Your task to perform on an android device: turn off javascript in the chrome app Image 0: 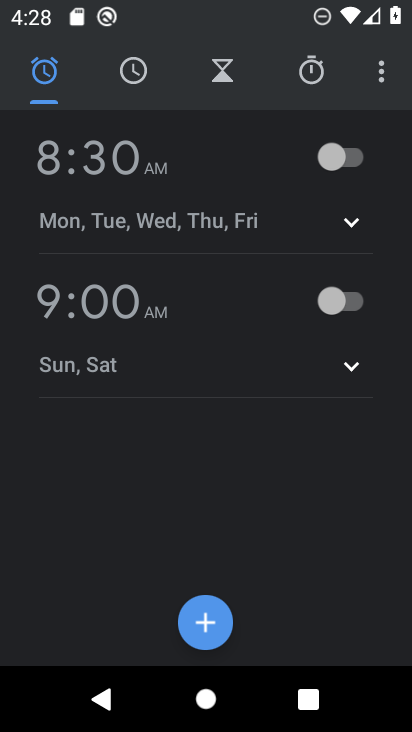
Step 0: press back button
Your task to perform on an android device: turn off javascript in the chrome app Image 1: 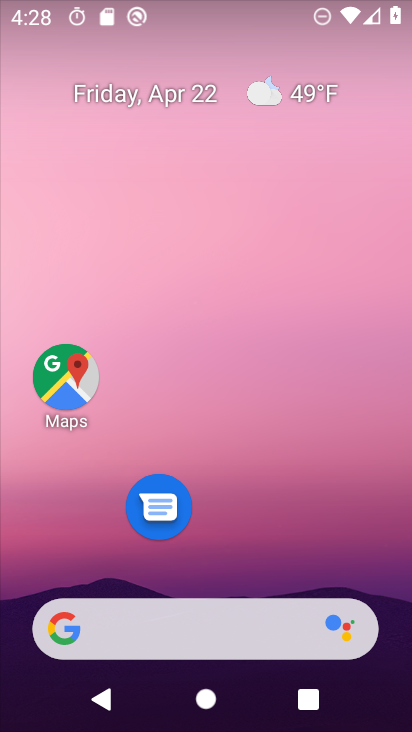
Step 1: drag from (254, 490) to (293, 96)
Your task to perform on an android device: turn off javascript in the chrome app Image 2: 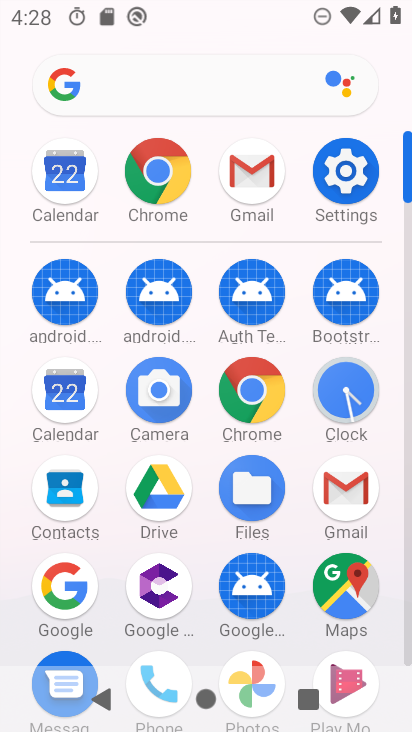
Step 2: click (164, 165)
Your task to perform on an android device: turn off javascript in the chrome app Image 3: 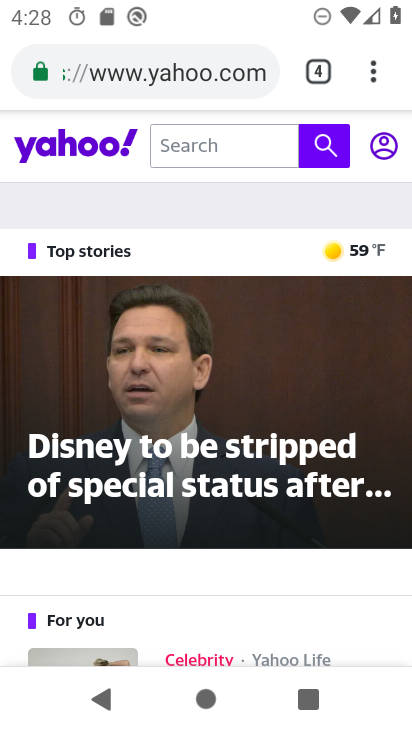
Step 3: drag from (371, 67) to (139, 497)
Your task to perform on an android device: turn off javascript in the chrome app Image 4: 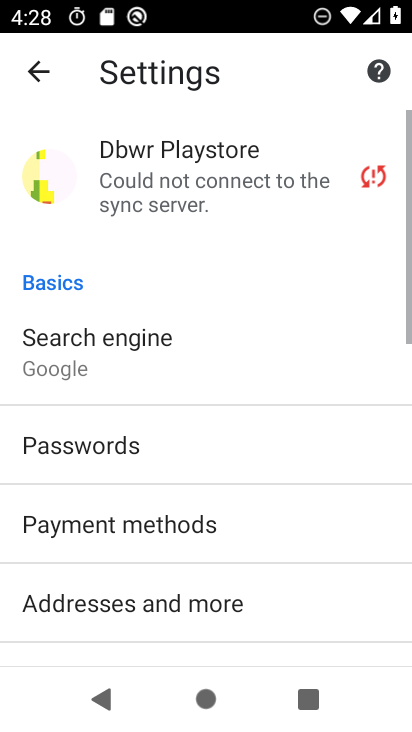
Step 4: drag from (102, 550) to (193, 118)
Your task to perform on an android device: turn off javascript in the chrome app Image 5: 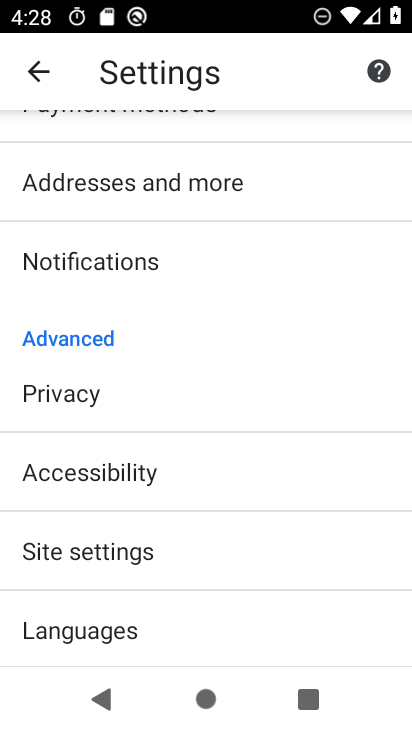
Step 5: drag from (98, 590) to (182, 252)
Your task to perform on an android device: turn off javascript in the chrome app Image 6: 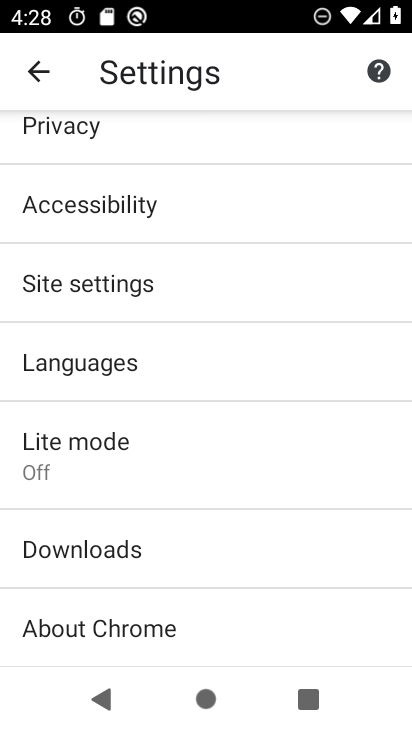
Step 6: click (123, 276)
Your task to perform on an android device: turn off javascript in the chrome app Image 7: 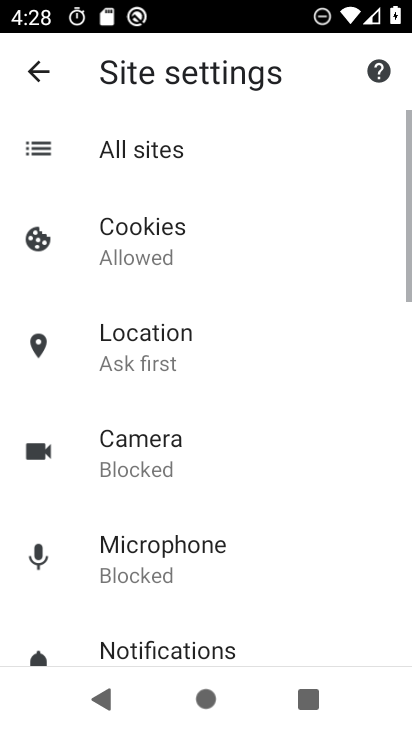
Step 7: drag from (154, 591) to (300, 96)
Your task to perform on an android device: turn off javascript in the chrome app Image 8: 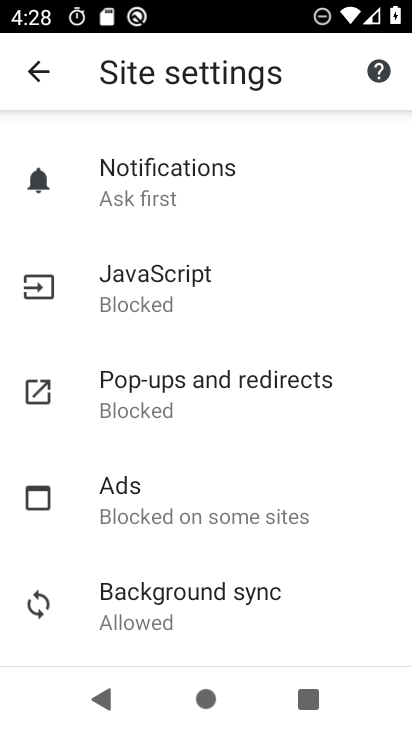
Step 8: click (167, 277)
Your task to perform on an android device: turn off javascript in the chrome app Image 9: 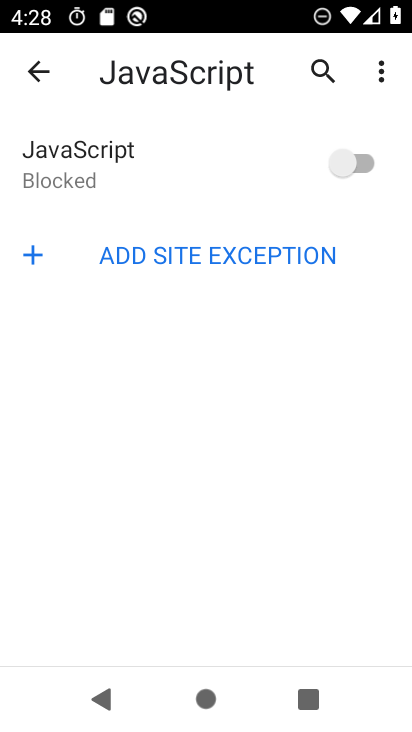
Step 9: task complete